Your task to perform on an android device: open device folders in google photos Image 0: 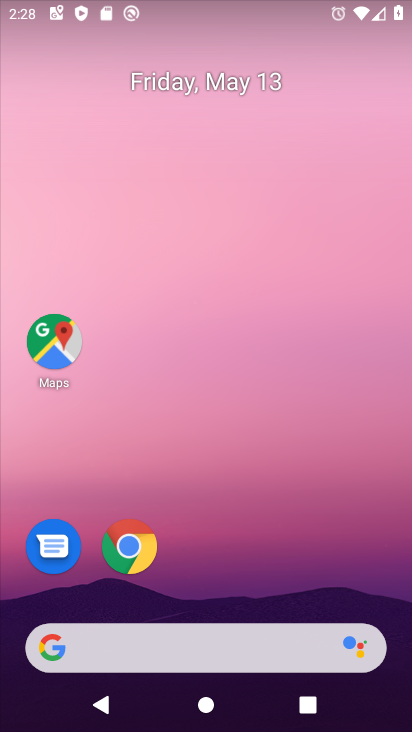
Step 0: drag from (269, 563) to (314, 134)
Your task to perform on an android device: open device folders in google photos Image 1: 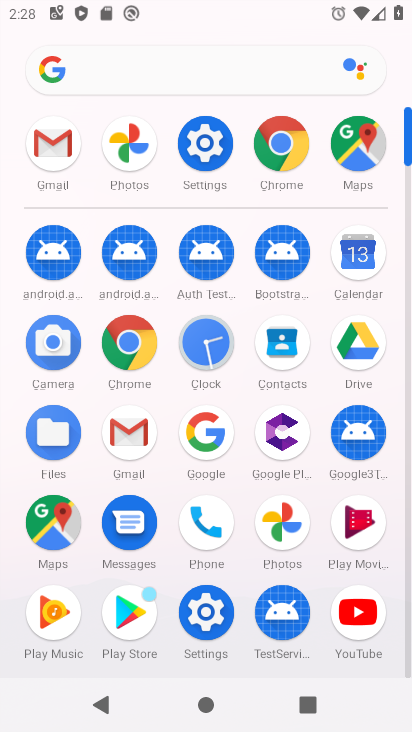
Step 1: click (294, 525)
Your task to perform on an android device: open device folders in google photos Image 2: 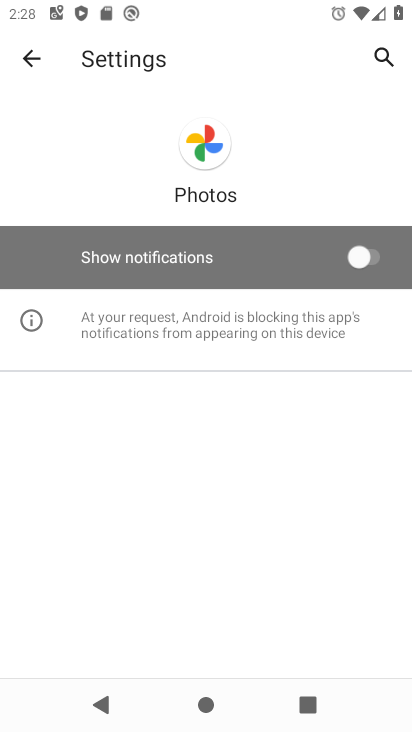
Step 2: click (32, 63)
Your task to perform on an android device: open device folders in google photos Image 3: 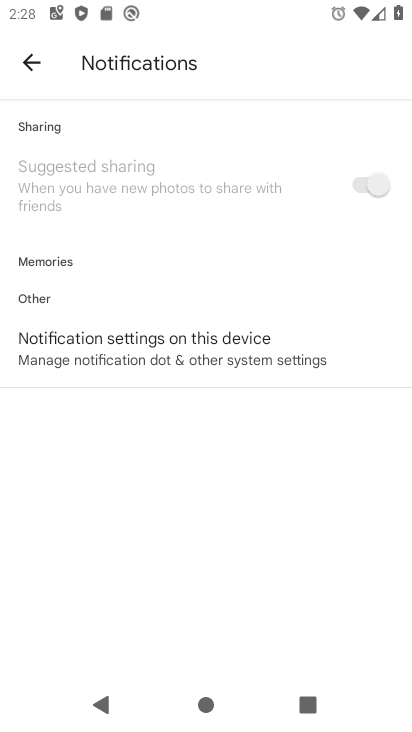
Step 3: click (39, 64)
Your task to perform on an android device: open device folders in google photos Image 4: 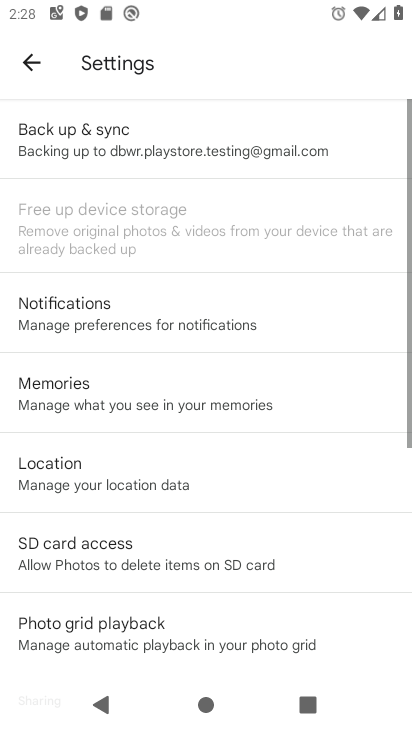
Step 4: click (39, 64)
Your task to perform on an android device: open device folders in google photos Image 5: 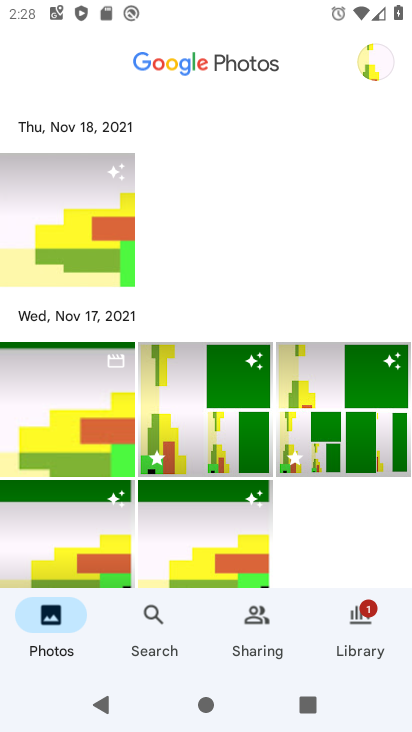
Step 5: click (364, 631)
Your task to perform on an android device: open device folders in google photos Image 6: 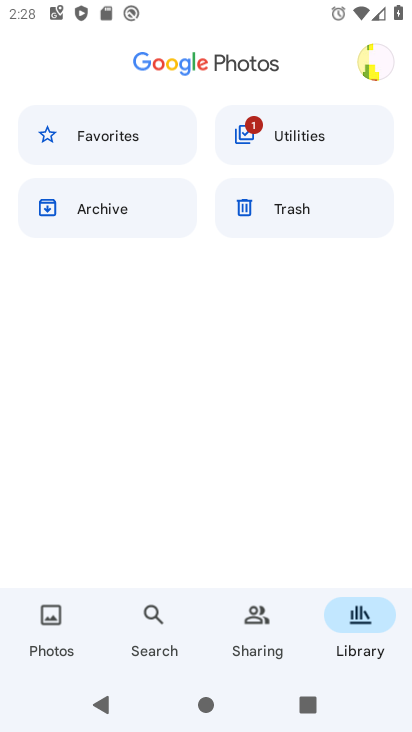
Step 6: click (148, 209)
Your task to perform on an android device: open device folders in google photos Image 7: 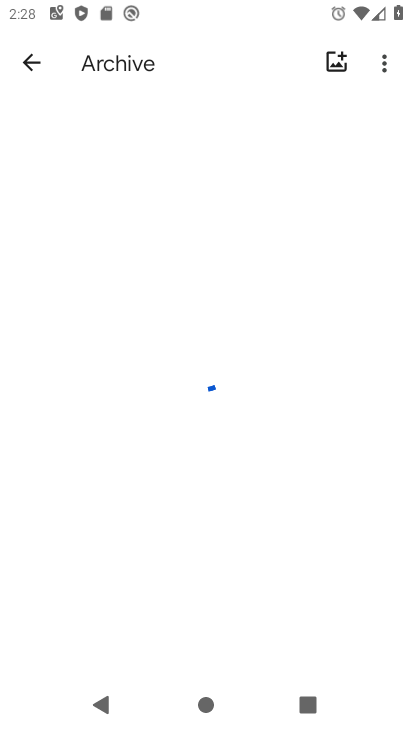
Step 7: click (32, 56)
Your task to perform on an android device: open device folders in google photos Image 8: 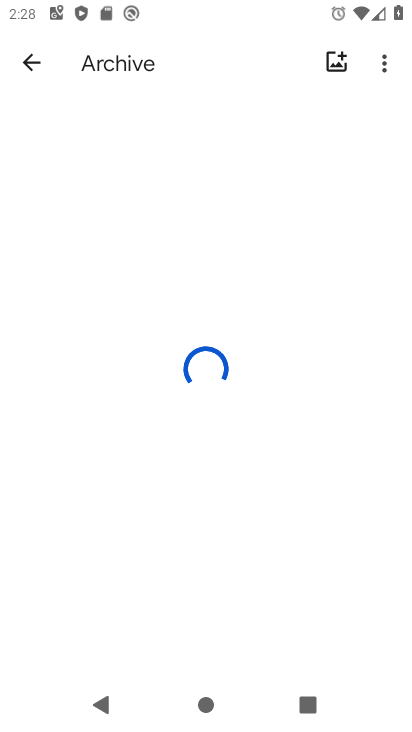
Step 8: click (46, 60)
Your task to perform on an android device: open device folders in google photos Image 9: 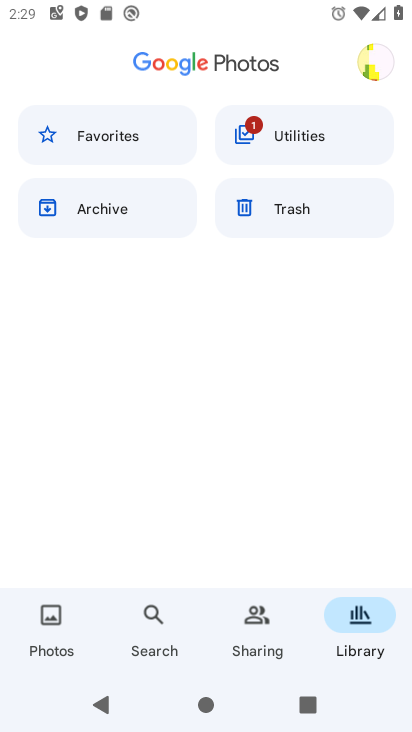
Step 9: click (327, 121)
Your task to perform on an android device: open device folders in google photos Image 10: 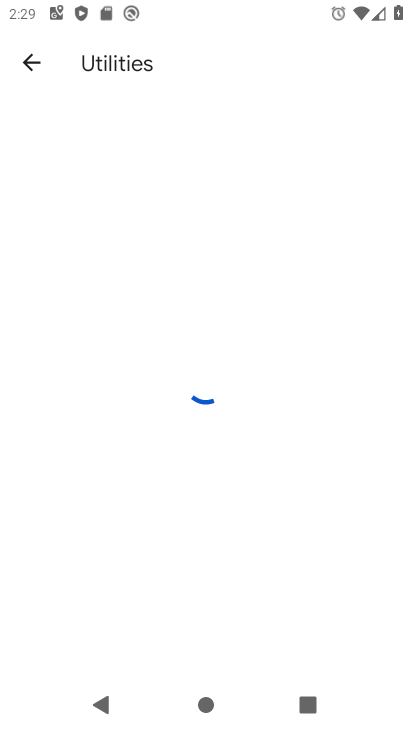
Step 10: click (48, 50)
Your task to perform on an android device: open device folders in google photos Image 11: 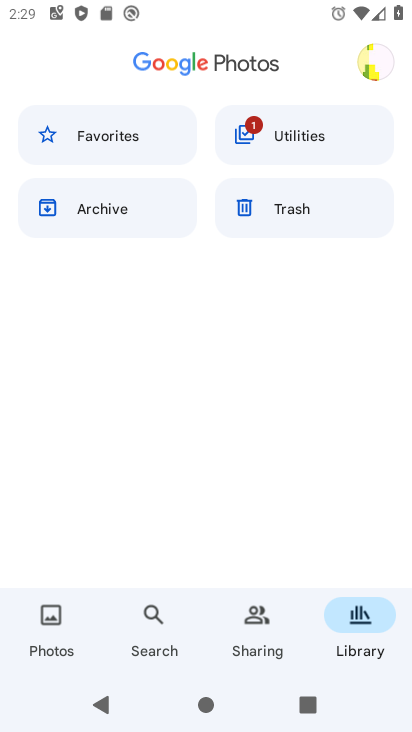
Step 11: click (378, 59)
Your task to perform on an android device: open device folders in google photos Image 12: 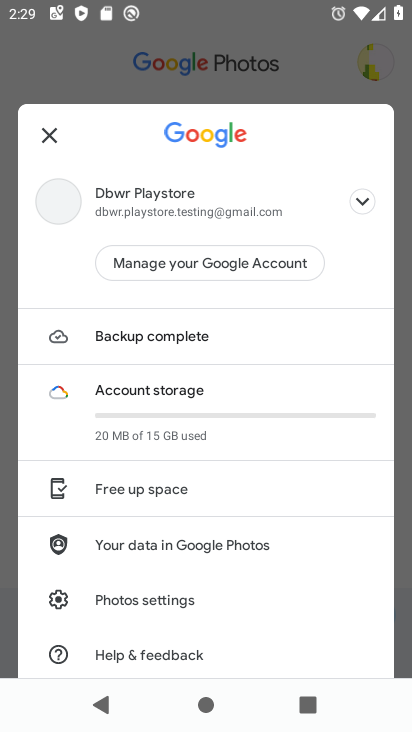
Step 12: drag from (236, 470) to (297, 280)
Your task to perform on an android device: open device folders in google photos Image 13: 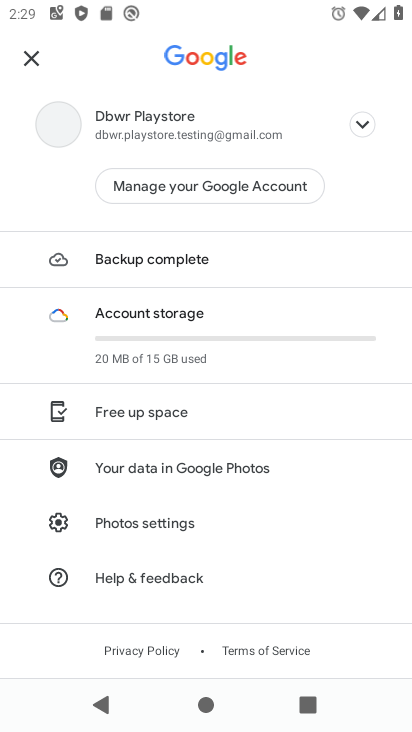
Step 13: click (167, 522)
Your task to perform on an android device: open device folders in google photos Image 14: 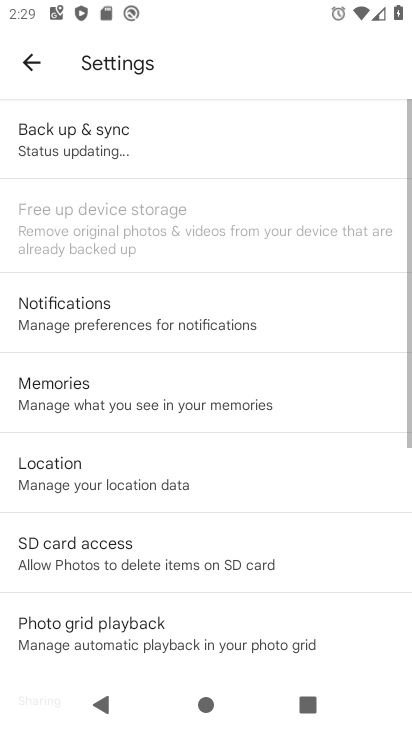
Step 14: click (27, 61)
Your task to perform on an android device: open device folders in google photos Image 15: 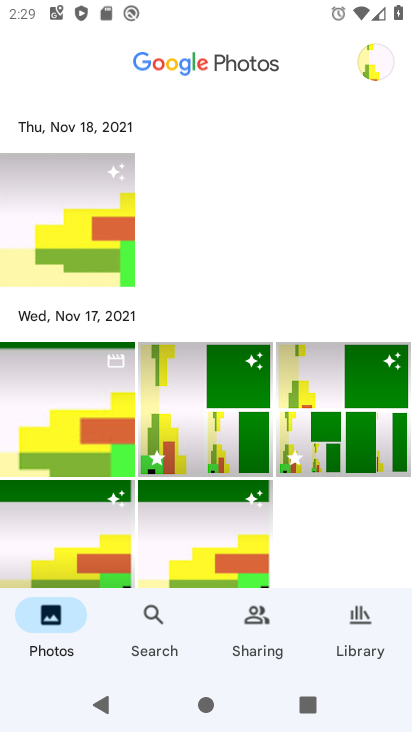
Step 15: click (34, 66)
Your task to perform on an android device: open device folders in google photos Image 16: 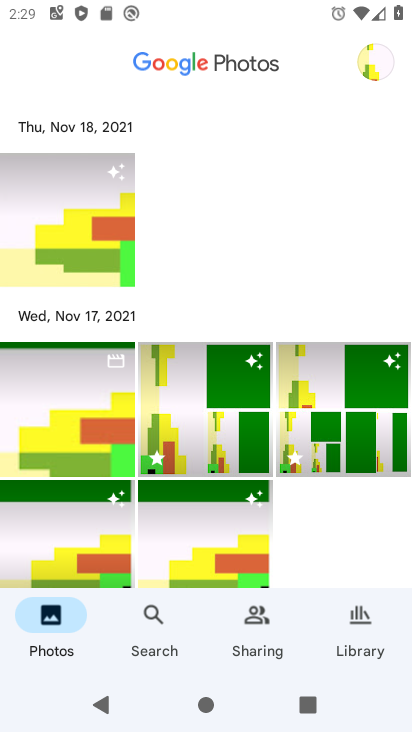
Step 16: task complete